Your task to perform on an android device: set an alarm Image 0: 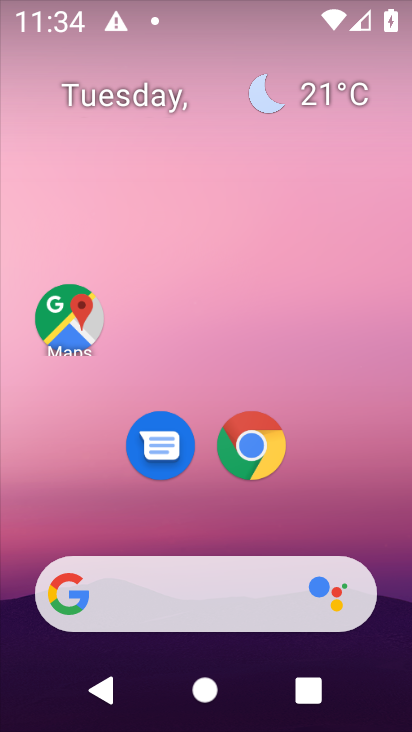
Step 0: drag from (219, 527) to (277, 27)
Your task to perform on an android device: set an alarm Image 1: 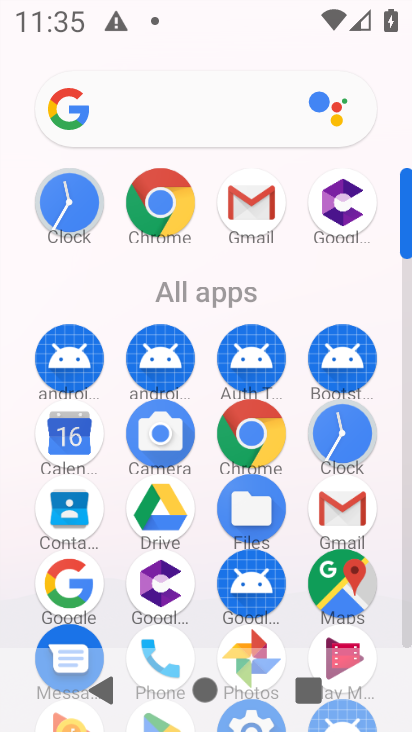
Step 1: click (349, 441)
Your task to perform on an android device: set an alarm Image 2: 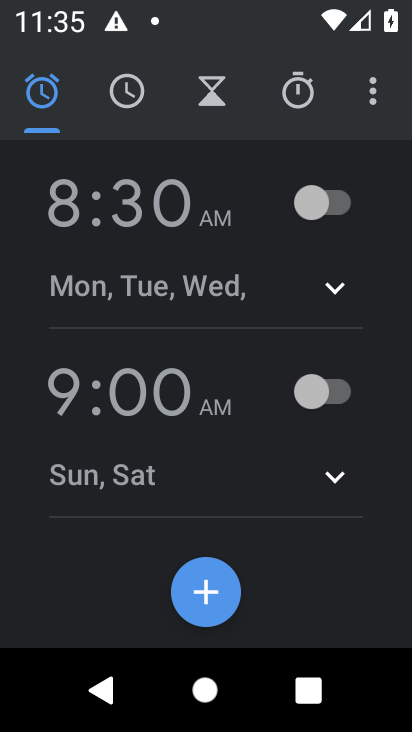
Step 2: click (299, 210)
Your task to perform on an android device: set an alarm Image 3: 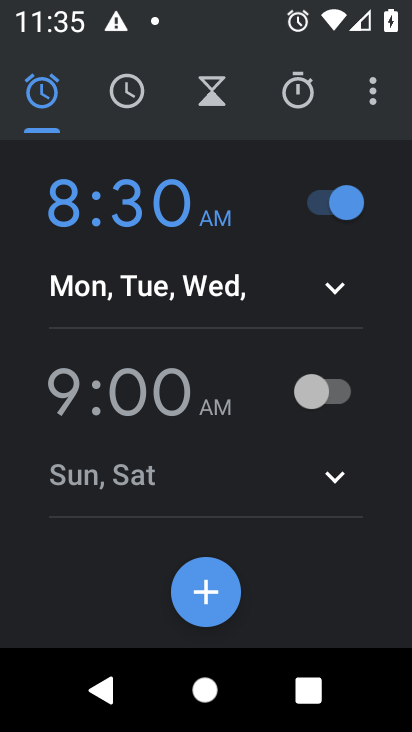
Step 3: task complete